Your task to perform on an android device: Go to Reddit.com Image 0: 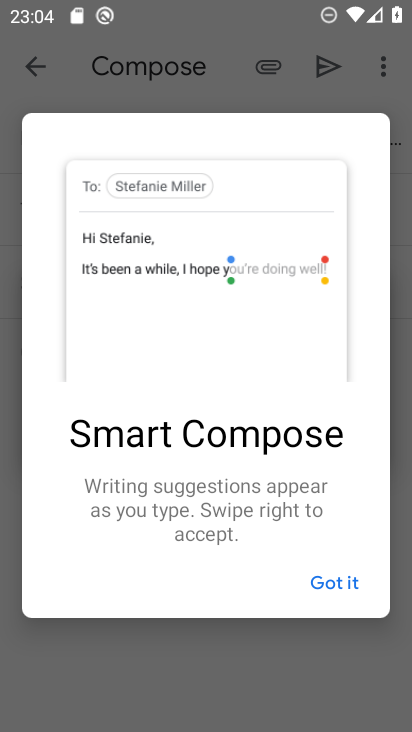
Step 0: press home button
Your task to perform on an android device: Go to Reddit.com Image 1: 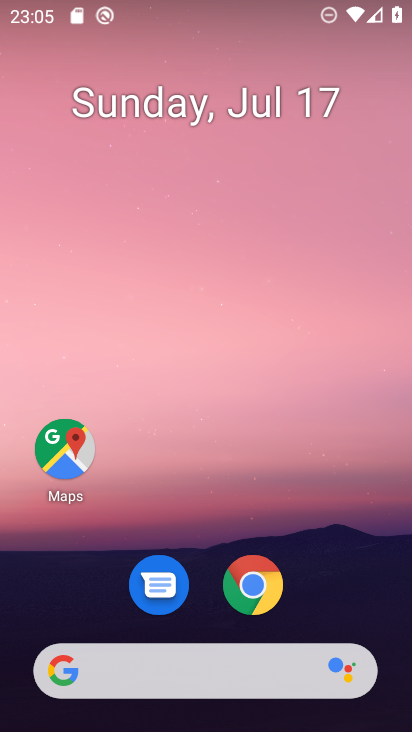
Step 1: click (252, 586)
Your task to perform on an android device: Go to Reddit.com Image 2: 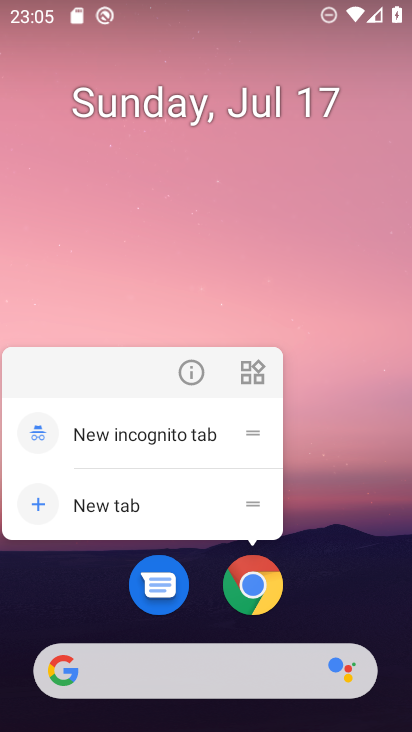
Step 2: click (261, 582)
Your task to perform on an android device: Go to Reddit.com Image 3: 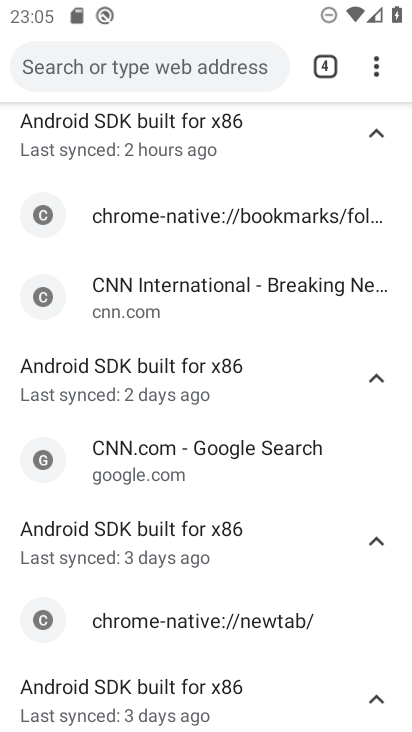
Step 3: drag from (379, 59) to (257, 137)
Your task to perform on an android device: Go to Reddit.com Image 4: 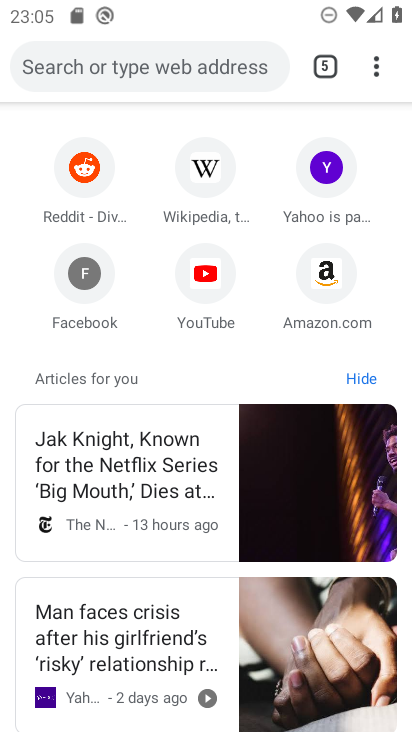
Step 4: click (88, 176)
Your task to perform on an android device: Go to Reddit.com Image 5: 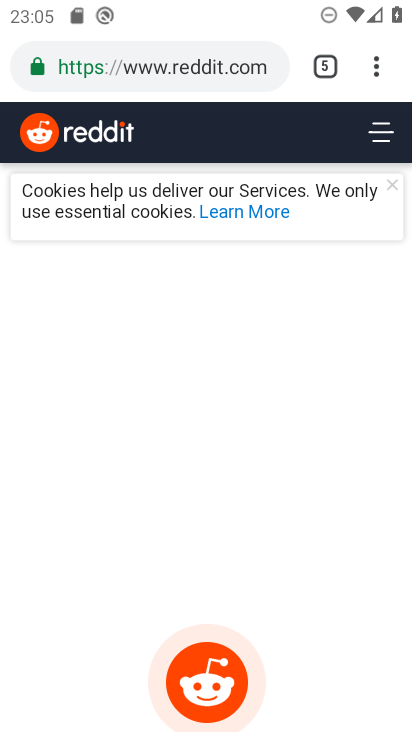
Step 5: task complete